Your task to perform on an android device: Go to Google maps Image 0: 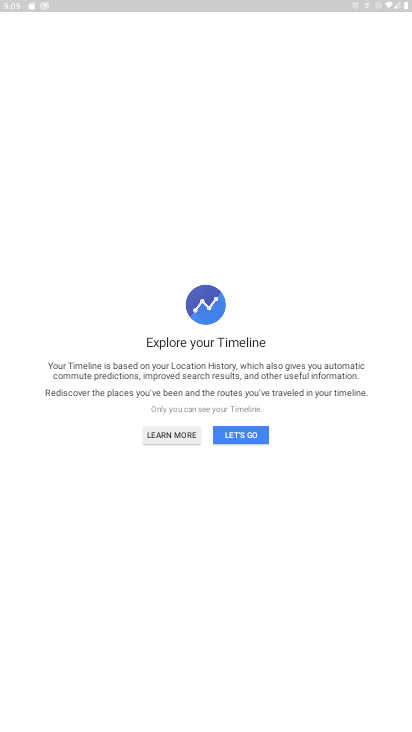
Step 0: press home button
Your task to perform on an android device: Go to Google maps Image 1: 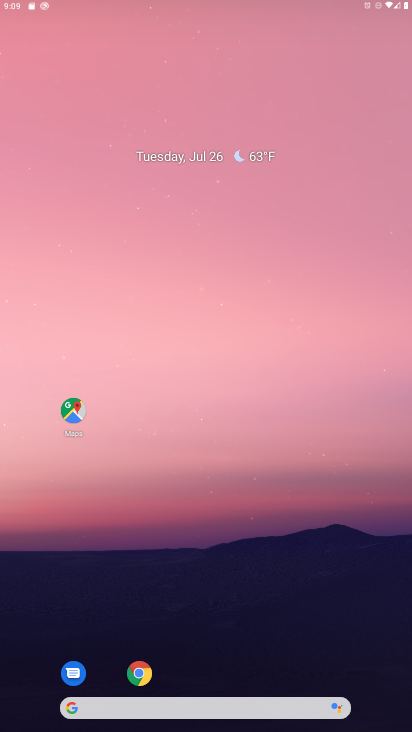
Step 1: drag from (400, 671) to (116, 63)
Your task to perform on an android device: Go to Google maps Image 2: 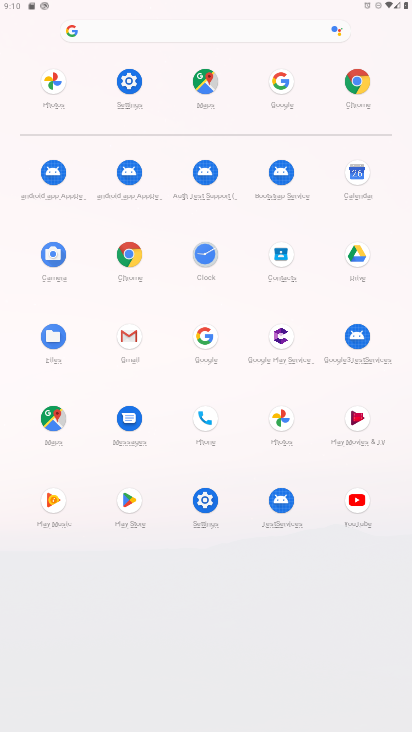
Step 2: click (54, 418)
Your task to perform on an android device: Go to Google maps Image 3: 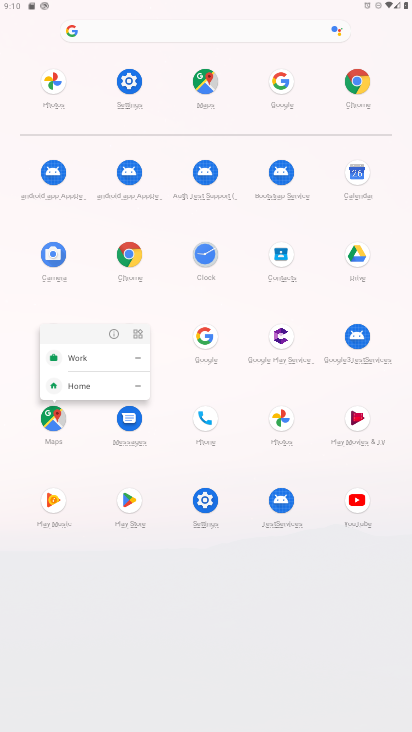
Step 3: click (53, 419)
Your task to perform on an android device: Go to Google maps Image 4: 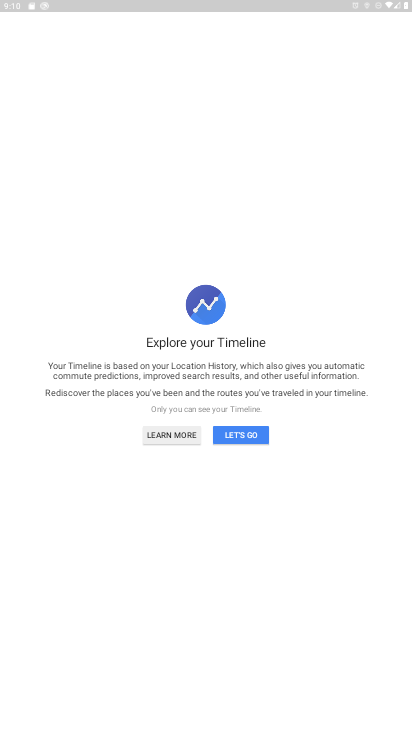
Step 4: task complete